Your task to perform on an android device: Open Google Image 0: 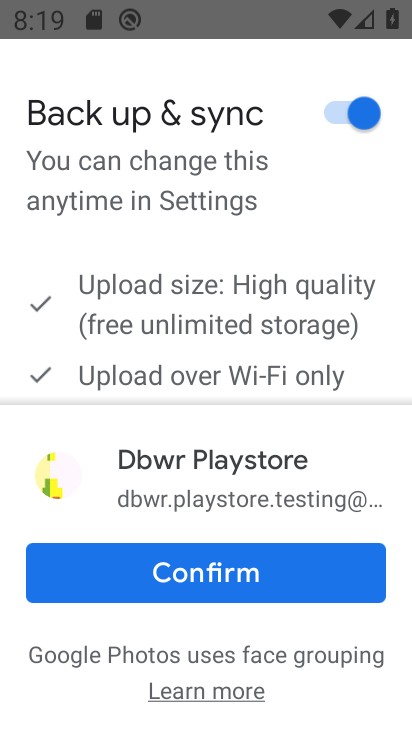
Step 0: click (219, 574)
Your task to perform on an android device: Open Google Image 1: 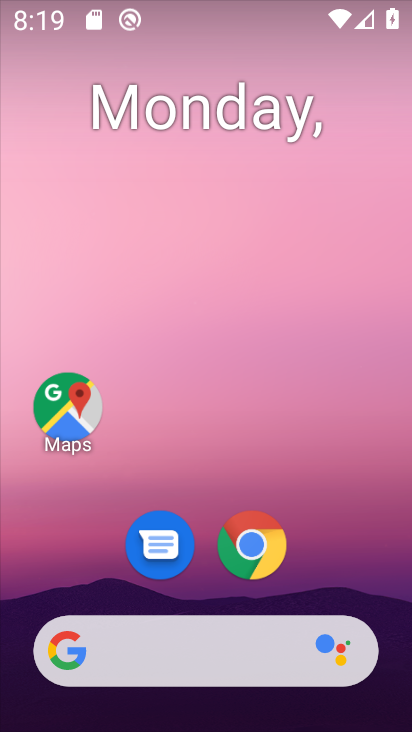
Step 1: drag from (344, 563) to (142, 81)
Your task to perform on an android device: Open Google Image 2: 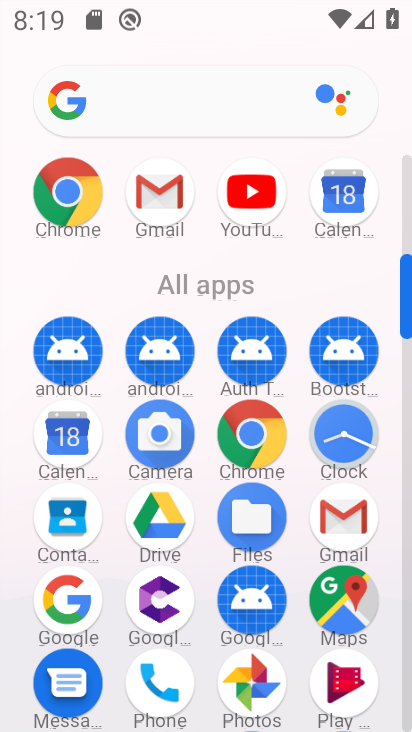
Step 2: click (68, 603)
Your task to perform on an android device: Open Google Image 3: 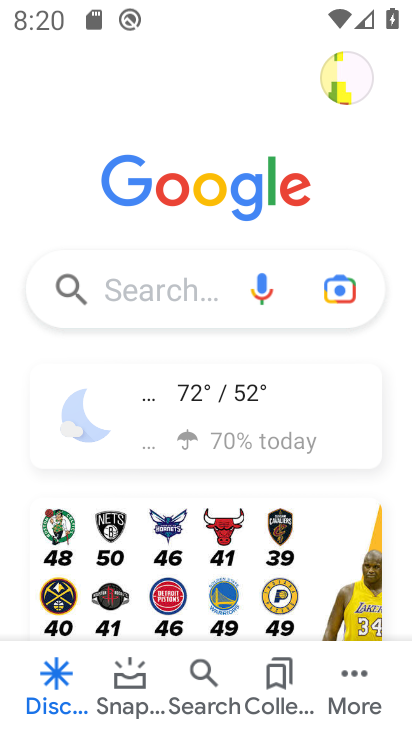
Step 3: task complete